Your task to perform on an android device: install app "Google Play Music" Image 0: 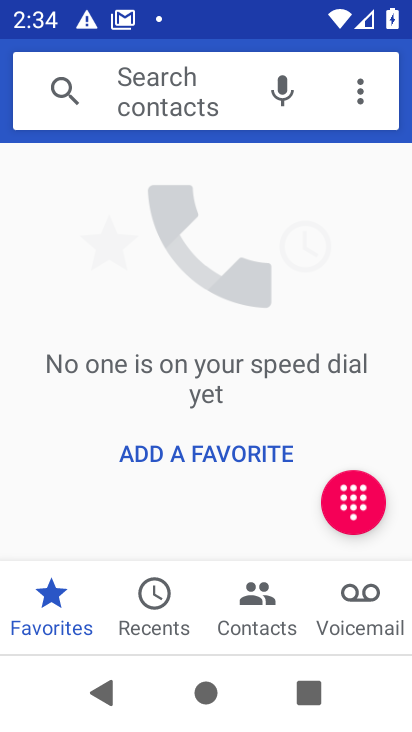
Step 0: task complete